Your task to perform on an android device: change text size in settings app Image 0: 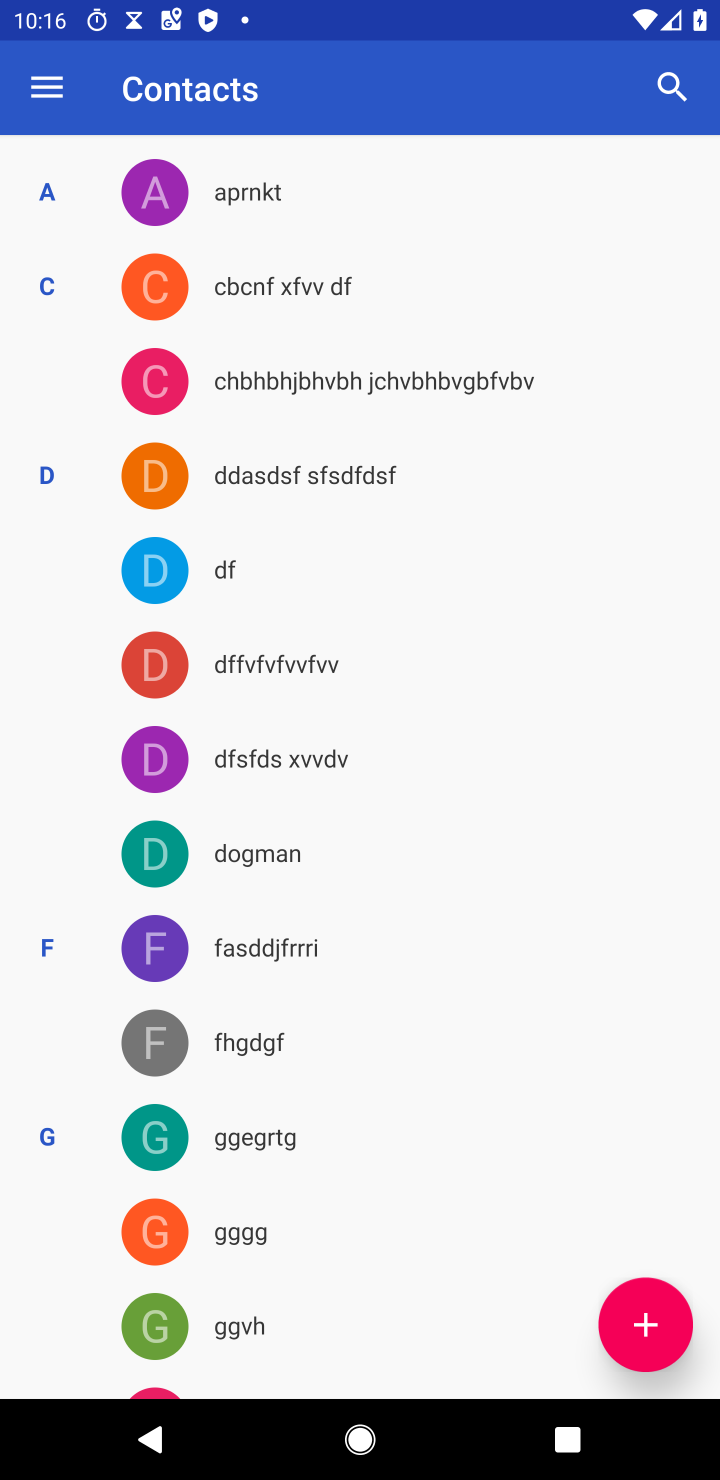
Step 0: press home button
Your task to perform on an android device: change text size in settings app Image 1: 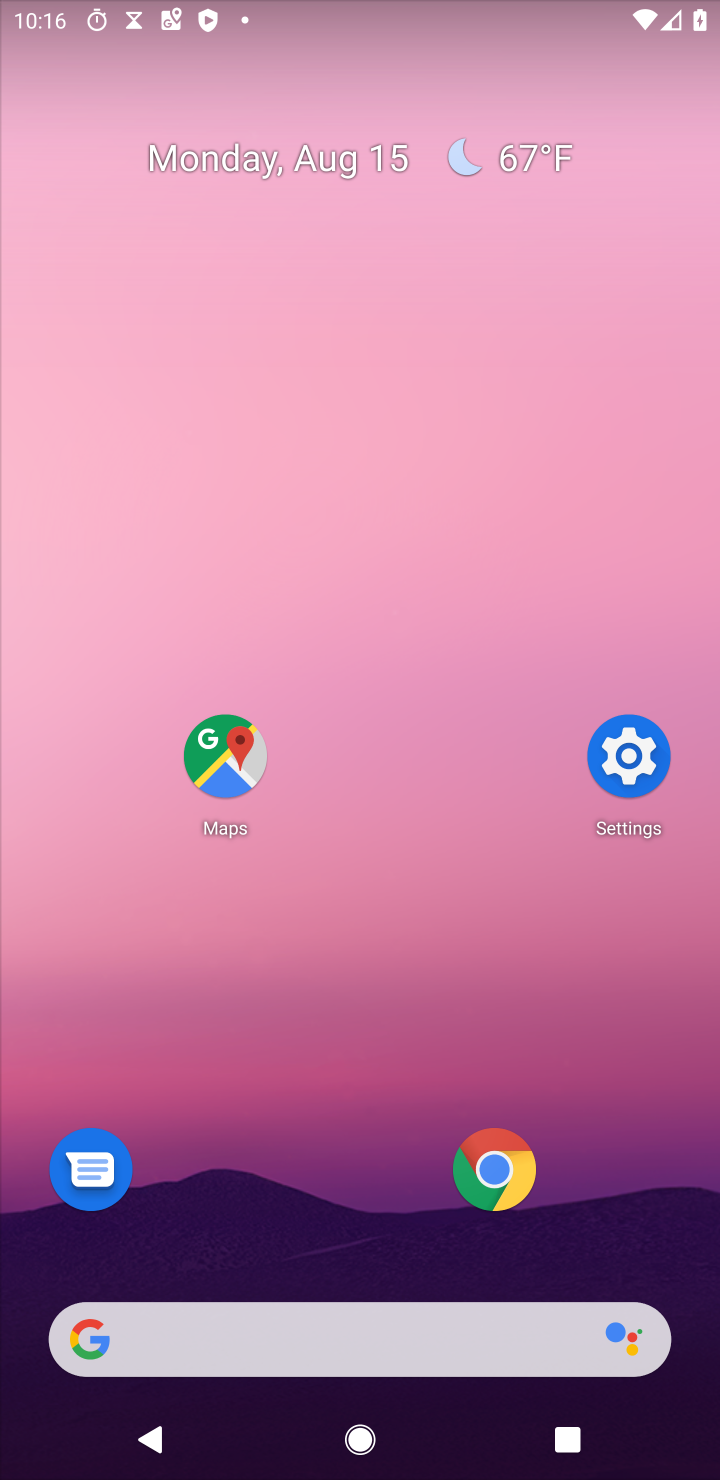
Step 1: click (631, 739)
Your task to perform on an android device: change text size in settings app Image 2: 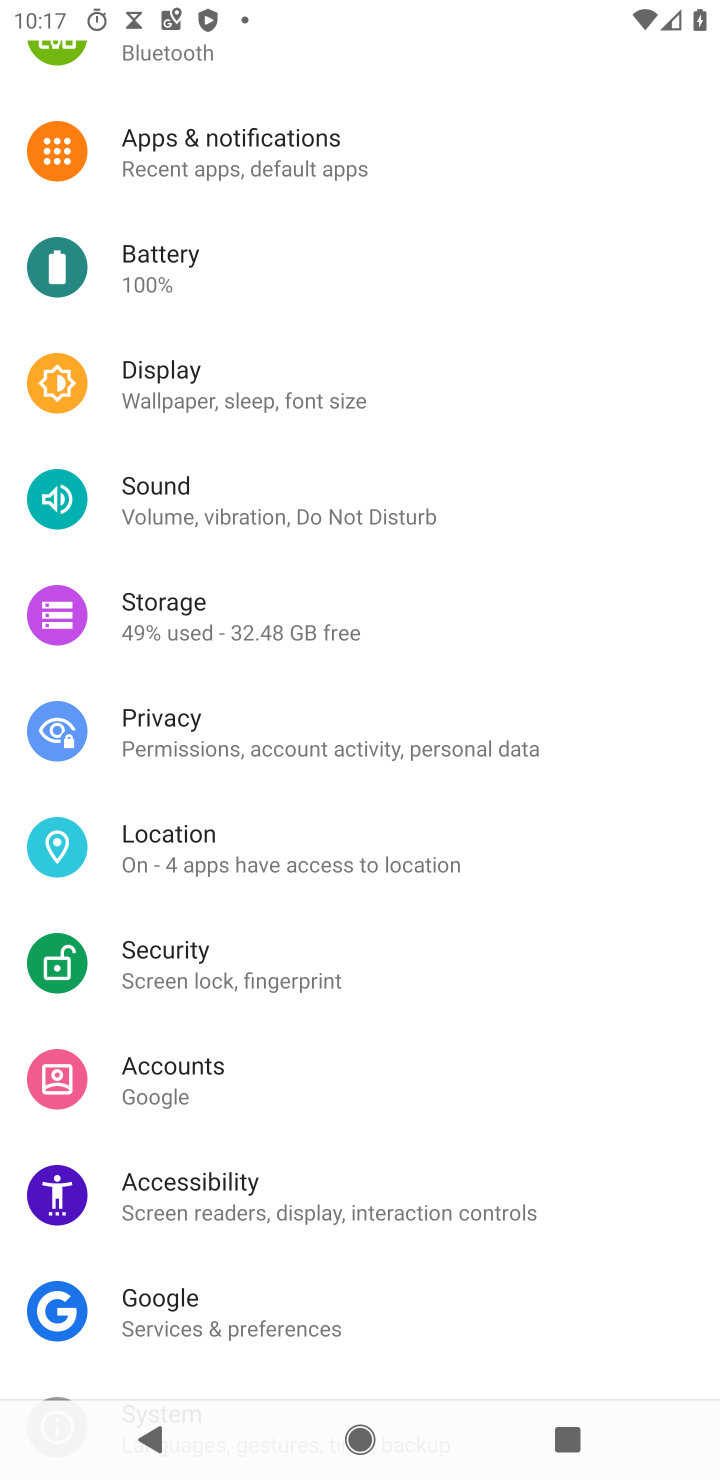
Step 2: drag from (501, 287) to (619, 1219)
Your task to perform on an android device: change text size in settings app Image 3: 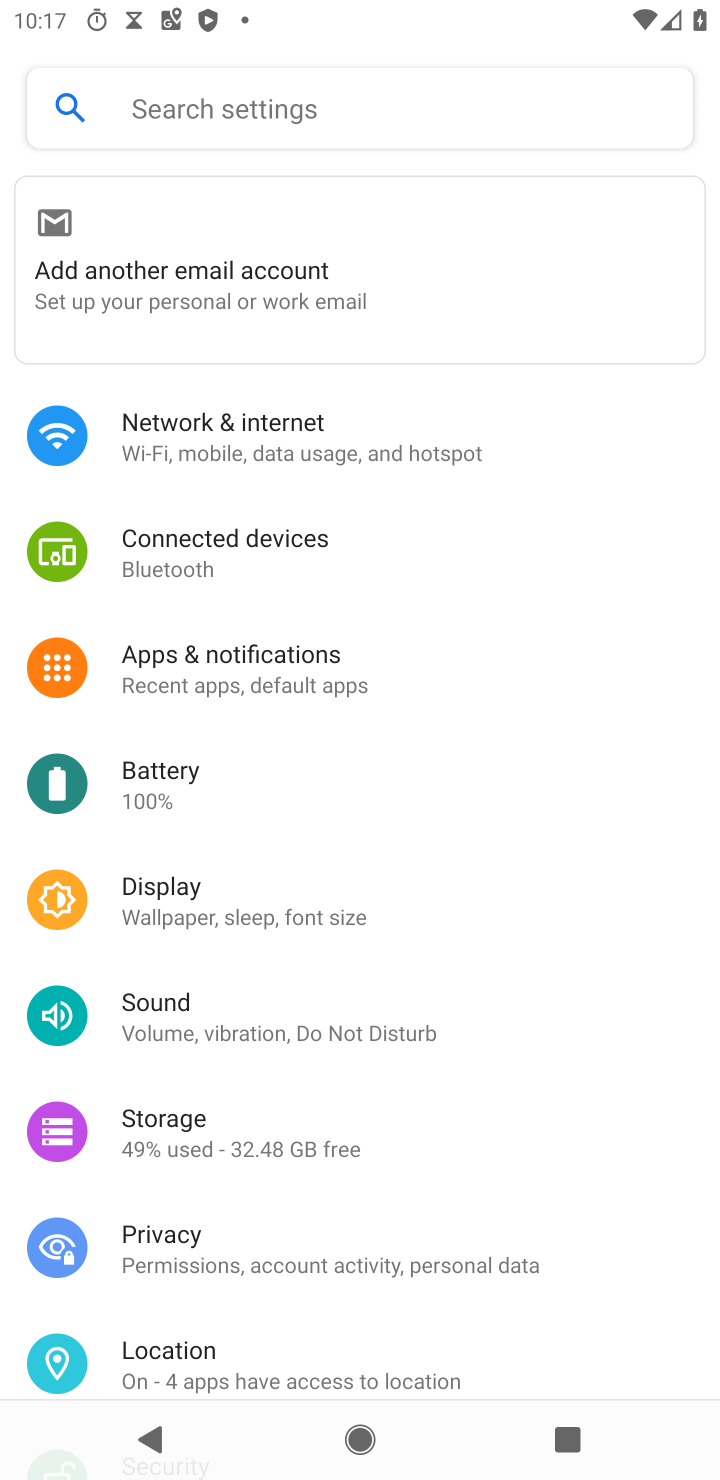
Step 3: click (294, 914)
Your task to perform on an android device: change text size in settings app Image 4: 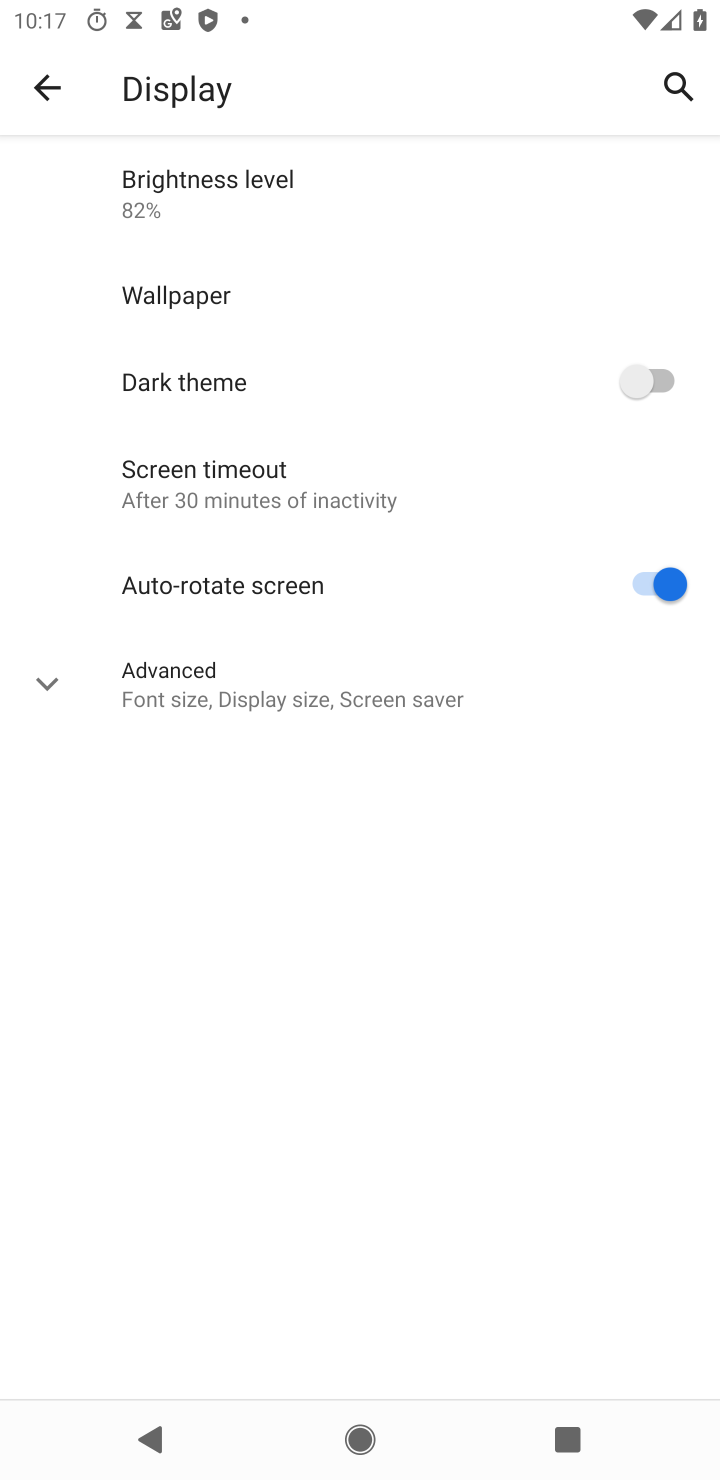
Step 4: click (225, 682)
Your task to perform on an android device: change text size in settings app Image 5: 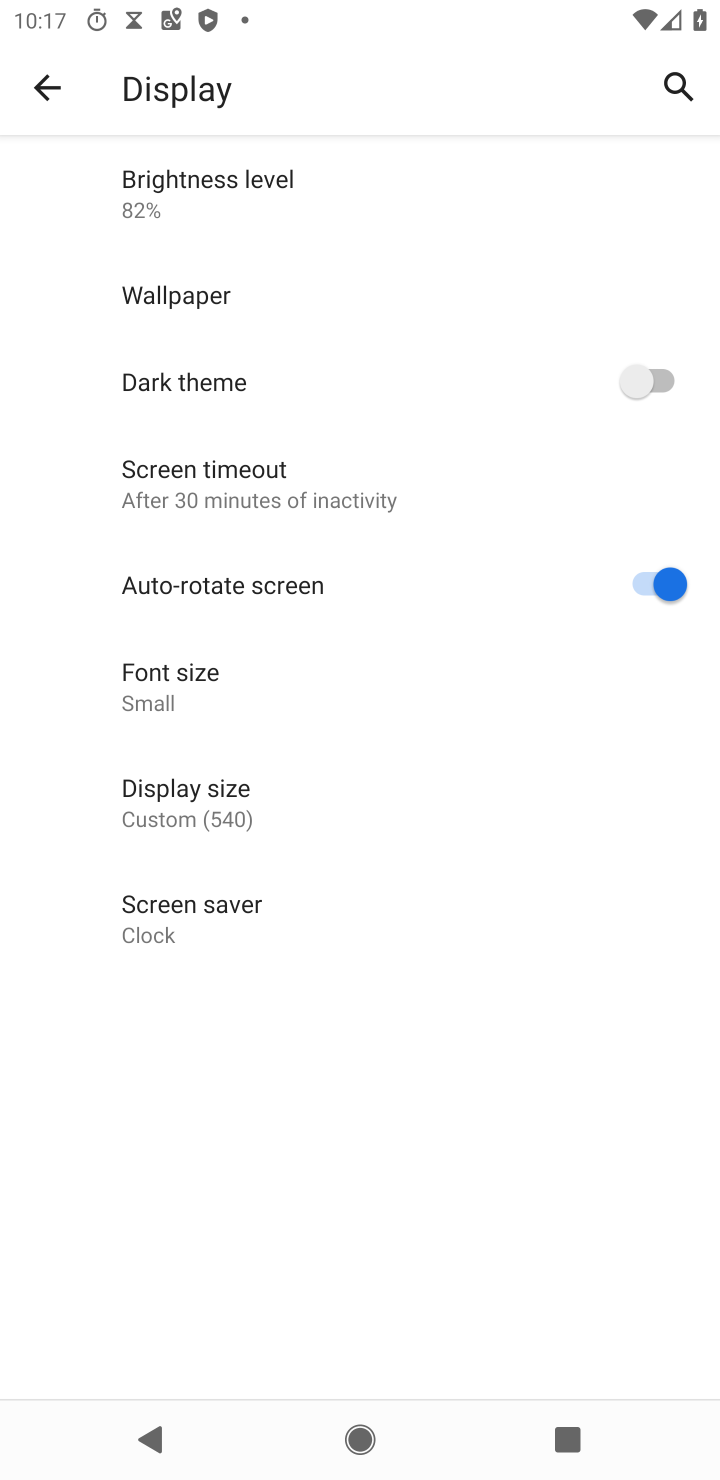
Step 5: click (206, 668)
Your task to perform on an android device: change text size in settings app Image 6: 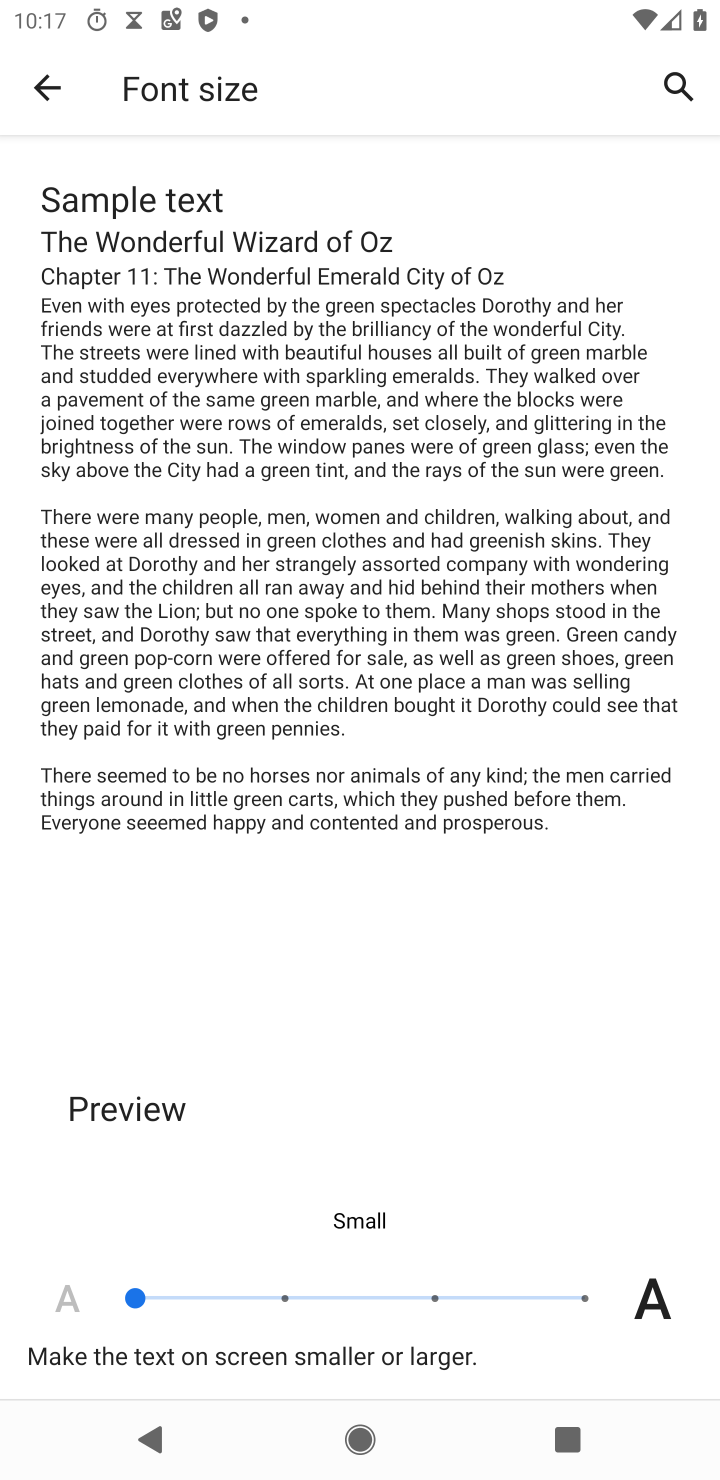
Step 6: click (283, 1286)
Your task to perform on an android device: change text size in settings app Image 7: 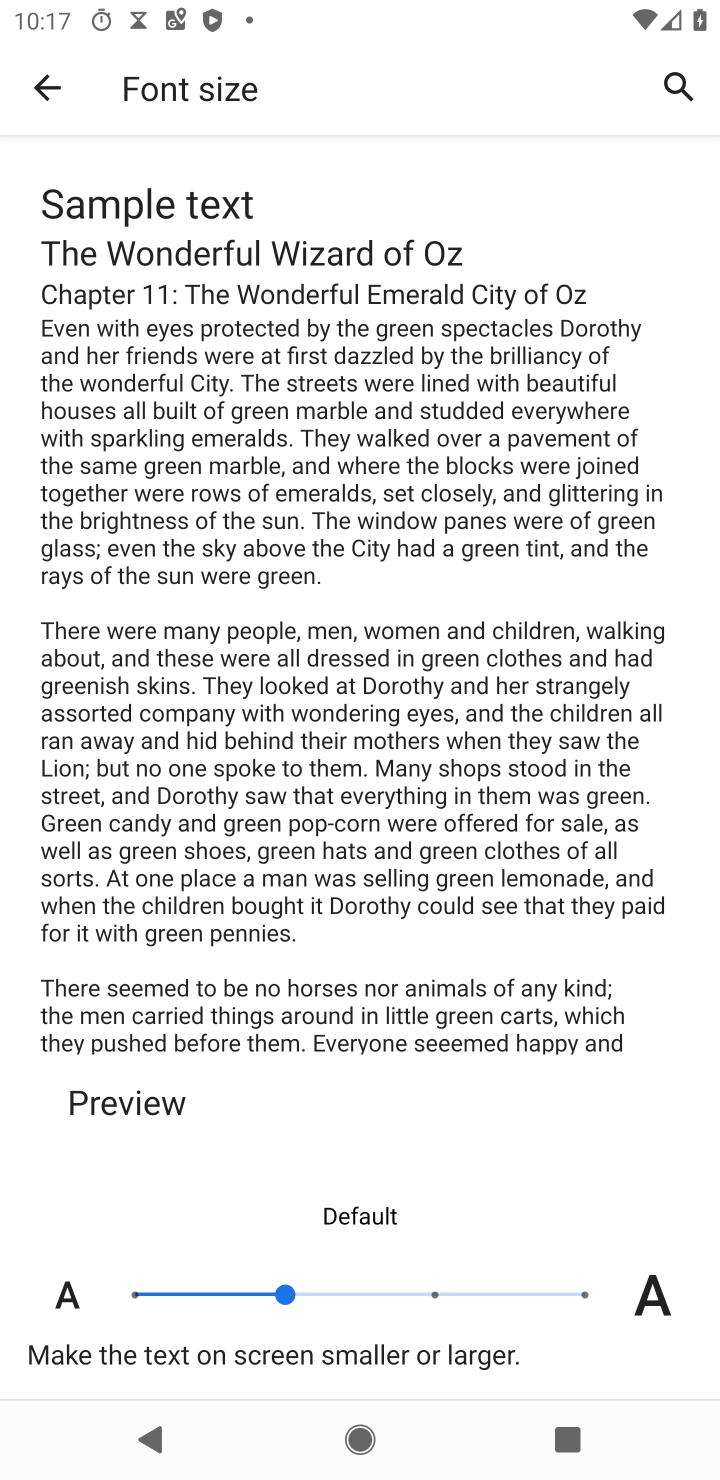
Step 7: task complete